Your task to perform on an android device: toggle translation in the chrome app Image 0: 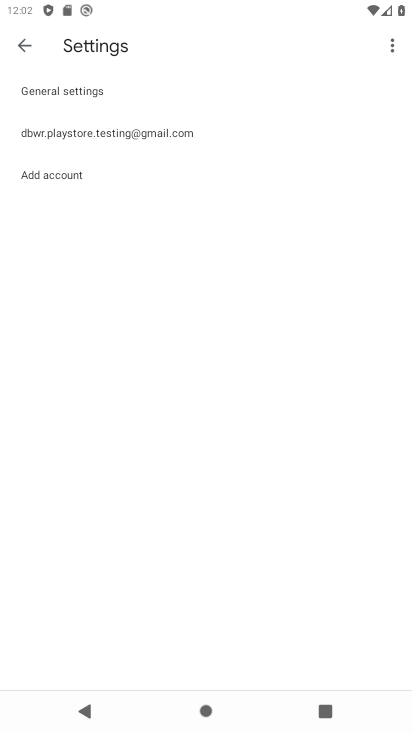
Step 0: press home button
Your task to perform on an android device: toggle translation in the chrome app Image 1: 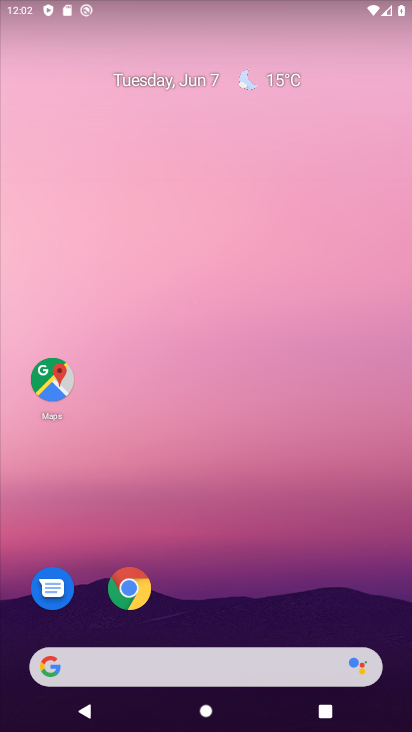
Step 1: click (126, 589)
Your task to perform on an android device: toggle translation in the chrome app Image 2: 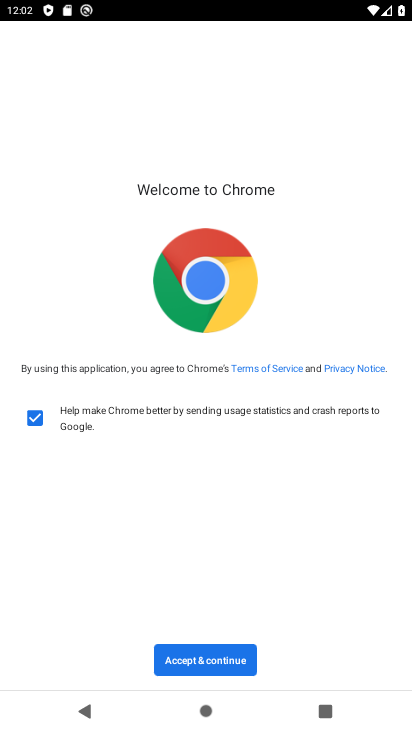
Step 2: click (198, 650)
Your task to perform on an android device: toggle translation in the chrome app Image 3: 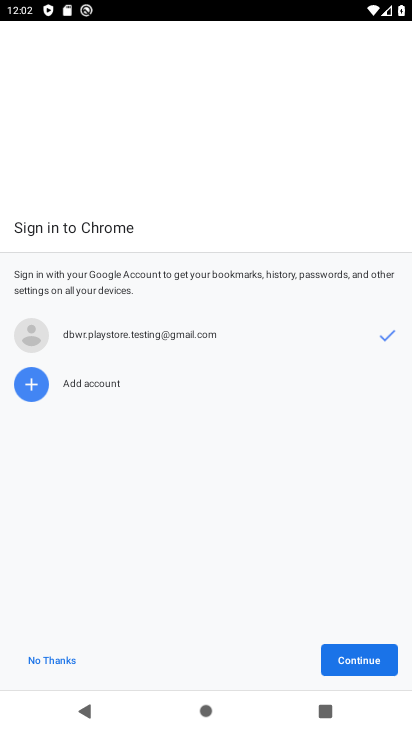
Step 3: click (353, 657)
Your task to perform on an android device: toggle translation in the chrome app Image 4: 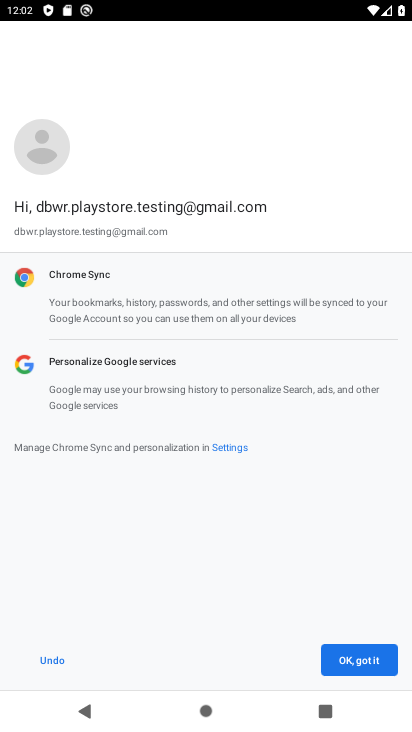
Step 4: click (375, 656)
Your task to perform on an android device: toggle translation in the chrome app Image 5: 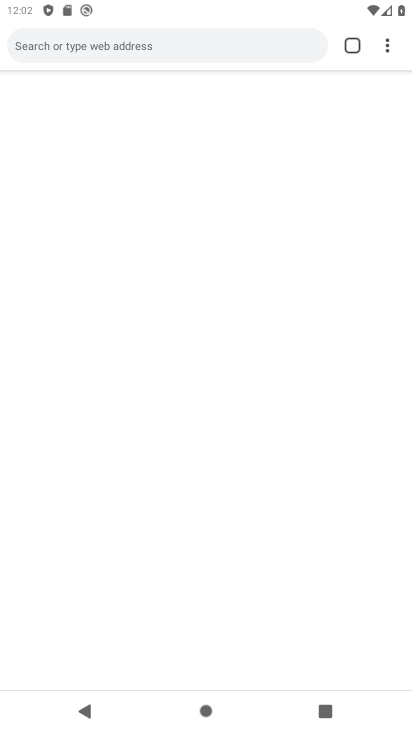
Step 5: click (383, 45)
Your task to perform on an android device: toggle translation in the chrome app Image 6: 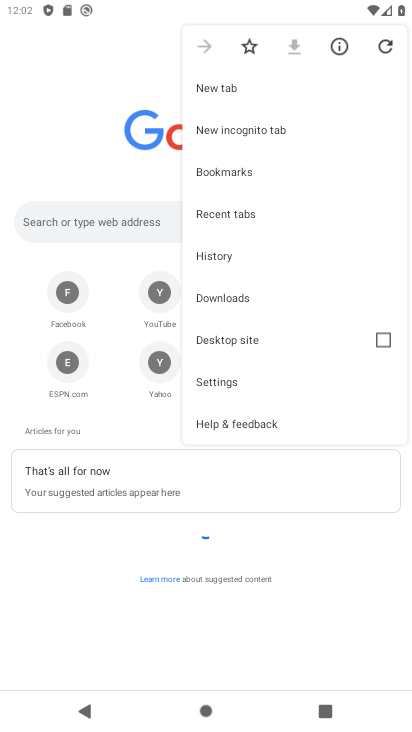
Step 6: click (238, 387)
Your task to perform on an android device: toggle translation in the chrome app Image 7: 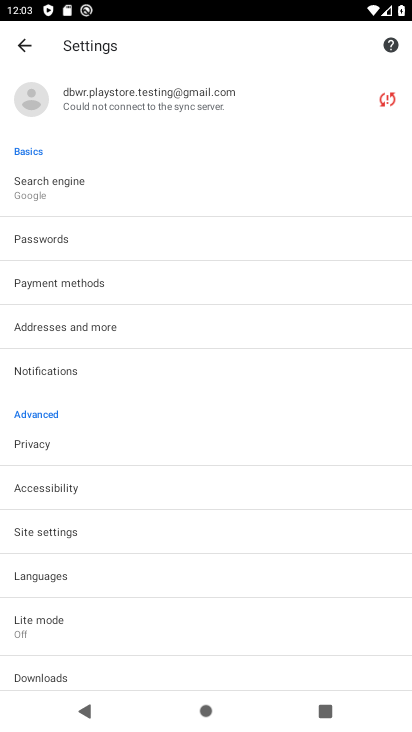
Step 7: click (77, 573)
Your task to perform on an android device: toggle translation in the chrome app Image 8: 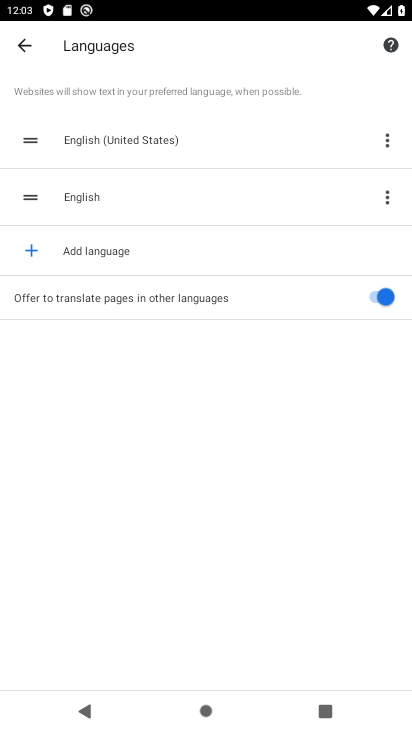
Step 8: click (373, 290)
Your task to perform on an android device: toggle translation in the chrome app Image 9: 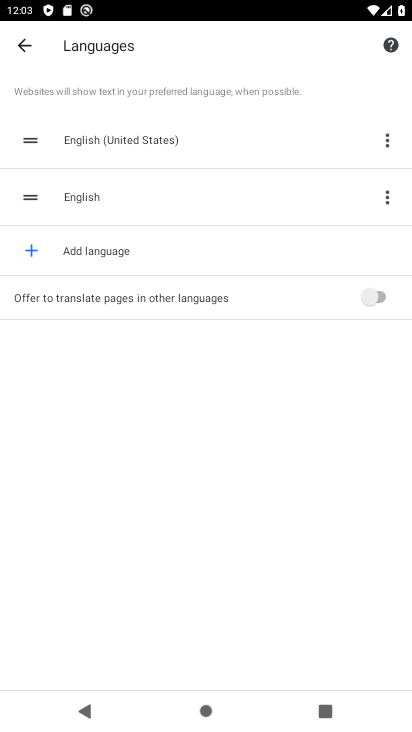
Step 9: task complete